Your task to perform on an android device: check android version Image 0: 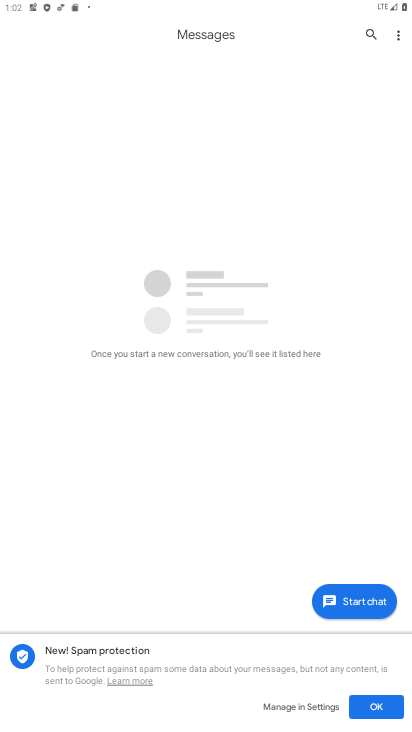
Step 0: drag from (186, 575) to (134, 107)
Your task to perform on an android device: check android version Image 1: 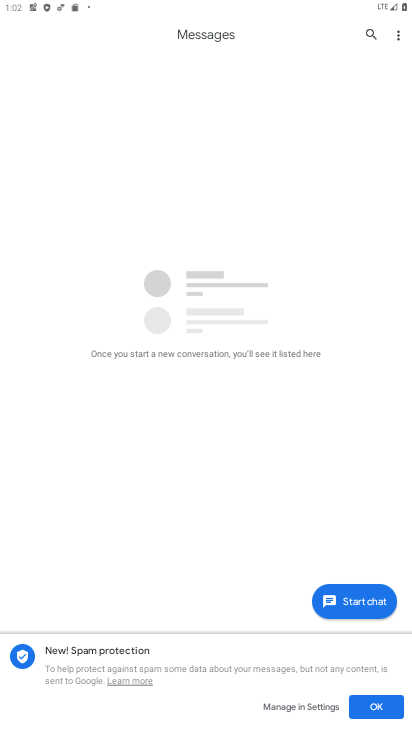
Step 1: press home button
Your task to perform on an android device: check android version Image 2: 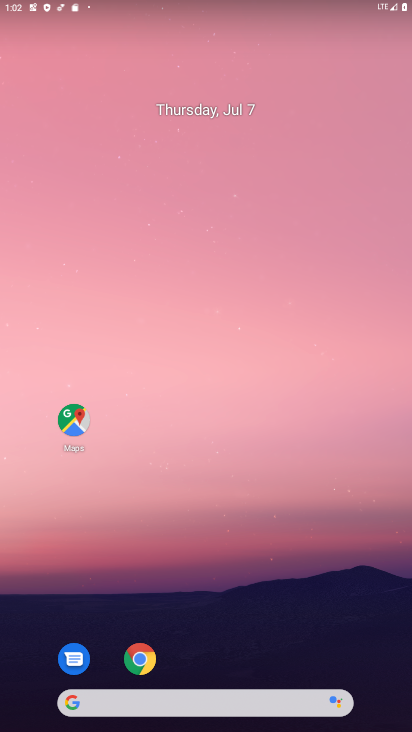
Step 2: drag from (261, 570) to (251, 120)
Your task to perform on an android device: check android version Image 3: 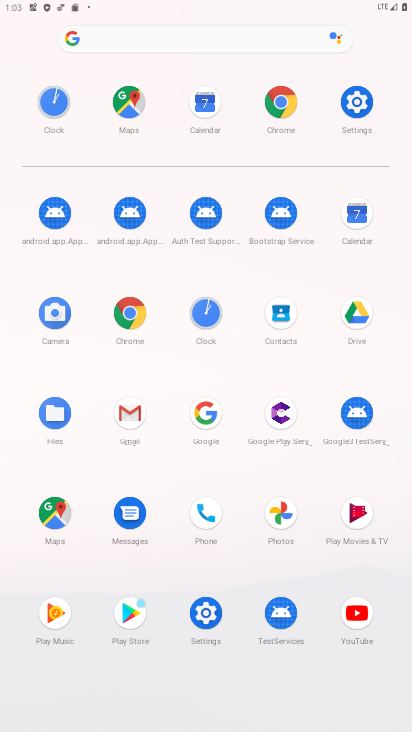
Step 3: click (362, 99)
Your task to perform on an android device: check android version Image 4: 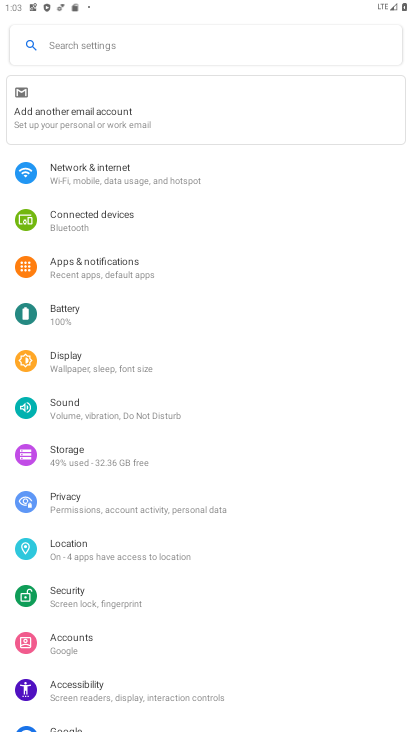
Step 4: drag from (167, 580) to (161, 230)
Your task to perform on an android device: check android version Image 5: 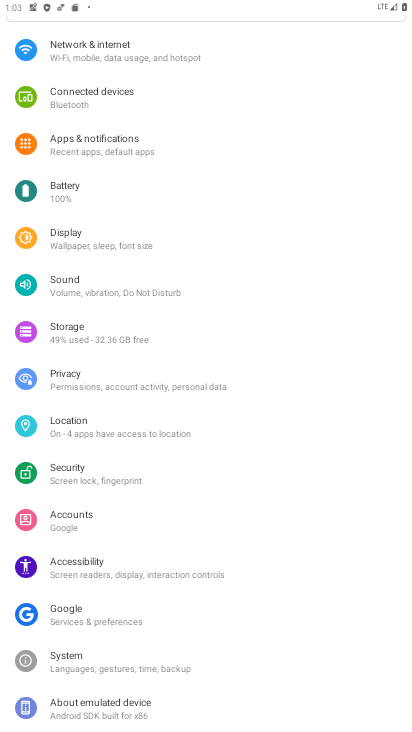
Step 5: drag from (166, 550) to (162, 262)
Your task to perform on an android device: check android version Image 6: 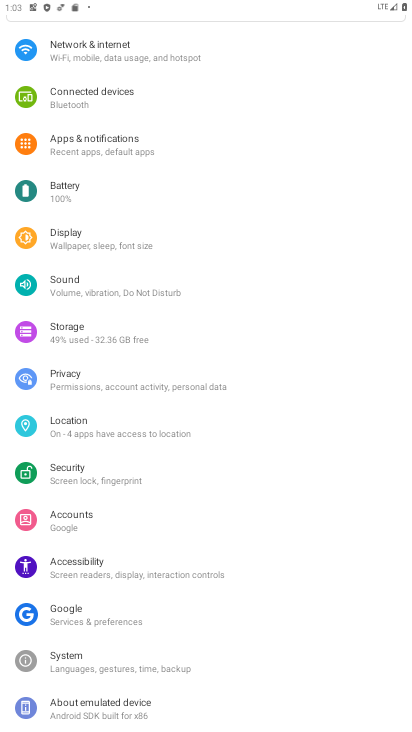
Step 6: click (88, 701)
Your task to perform on an android device: check android version Image 7: 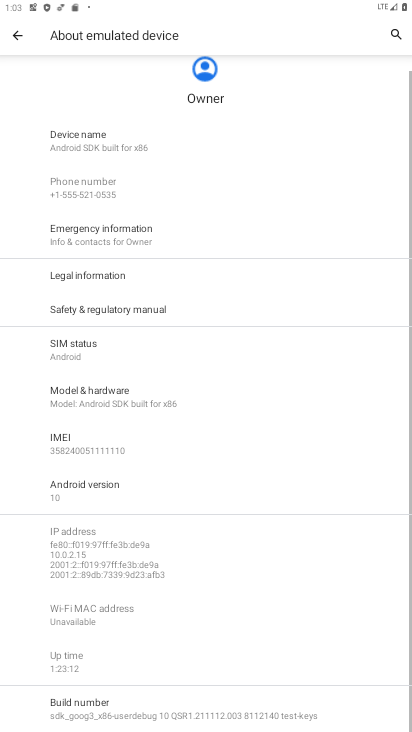
Step 7: drag from (244, 612) to (244, 331)
Your task to perform on an android device: check android version Image 8: 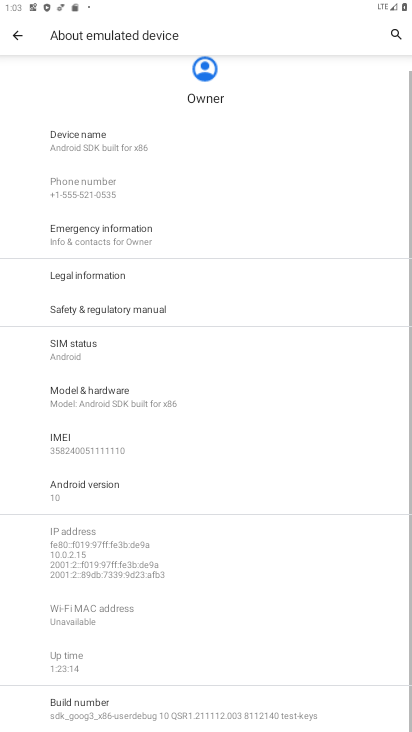
Step 8: click (83, 484)
Your task to perform on an android device: check android version Image 9: 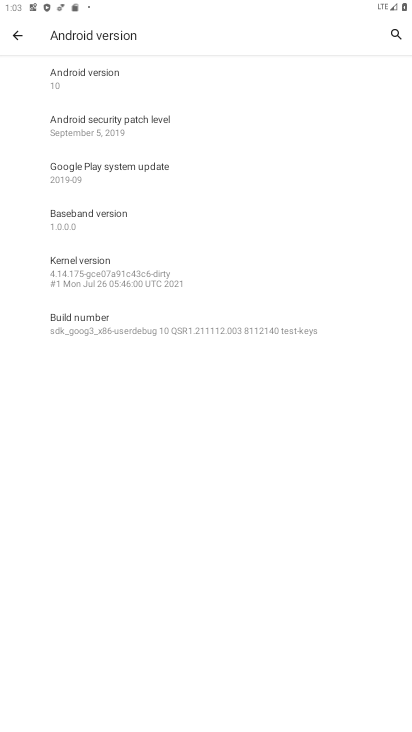
Step 9: task complete